Your task to perform on an android device: Turn on the flashlight Image 0: 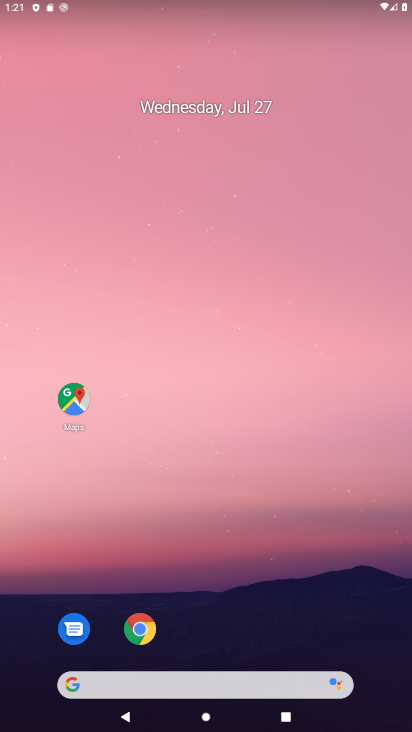
Step 0: drag from (261, 636) to (298, 39)
Your task to perform on an android device: Turn on the flashlight Image 1: 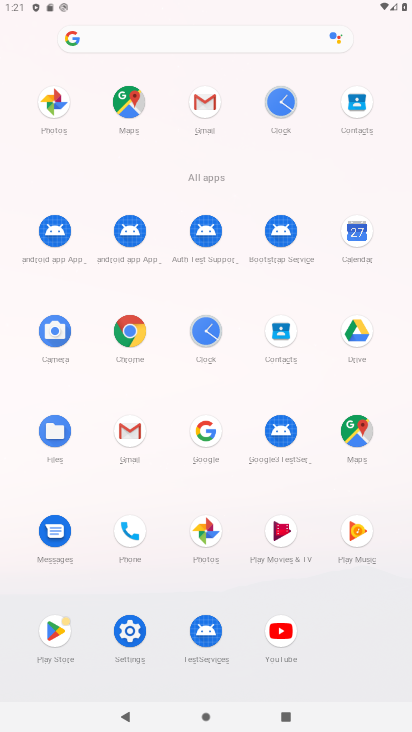
Step 1: click (138, 638)
Your task to perform on an android device: Turn on the flashlight Image 2: 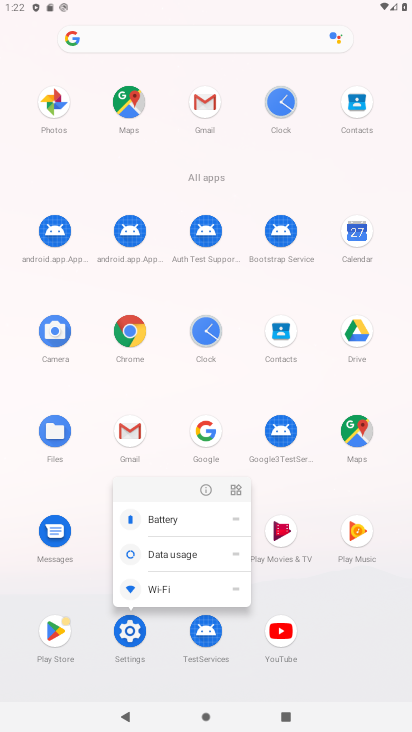
Step 2: click (129, 634)
Your task to perform on an android device: Turn on the flashlight Image 3: 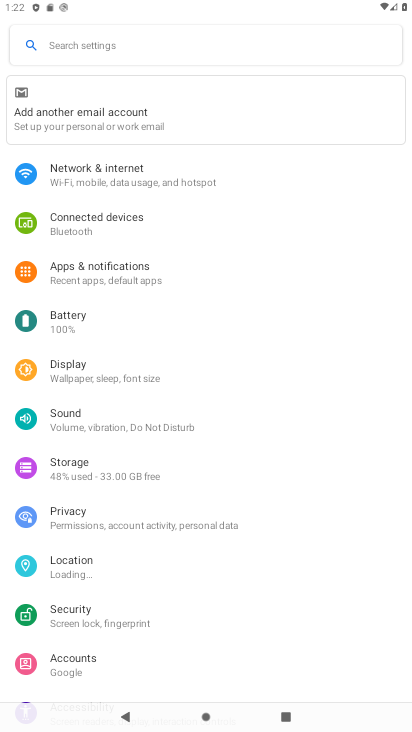
Step 3: click (83, 356)
Your task to perform on an android device: Turn on the flashlight Image 4: 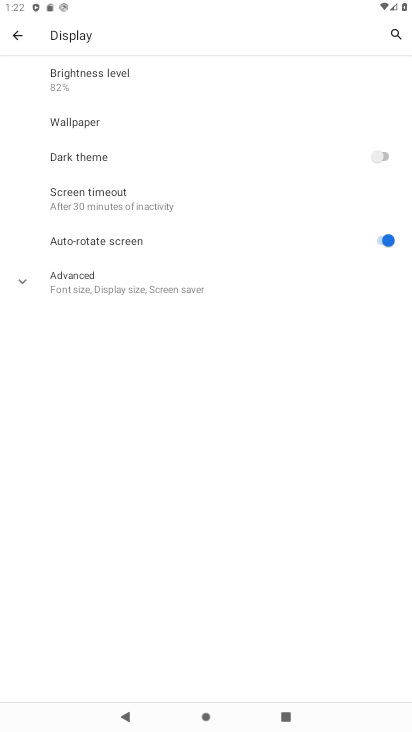
Step 4: click (147, 273)
Your task to perform on an android device: Turn on the flashlight Image 5: 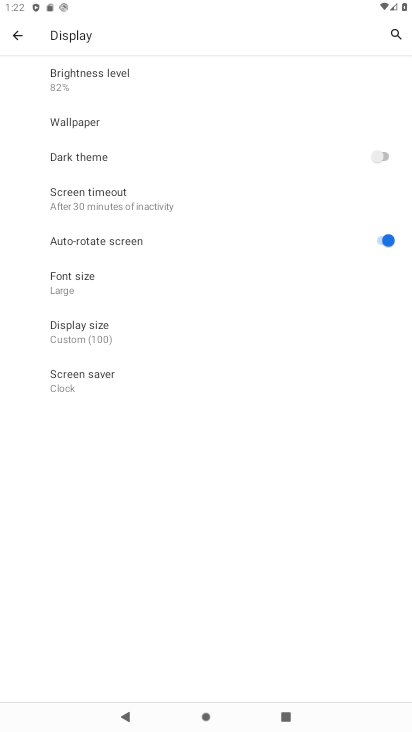
Step 5: click (101, 326)
Your task to perform on an android device: Turn on the flashlight Image 6: 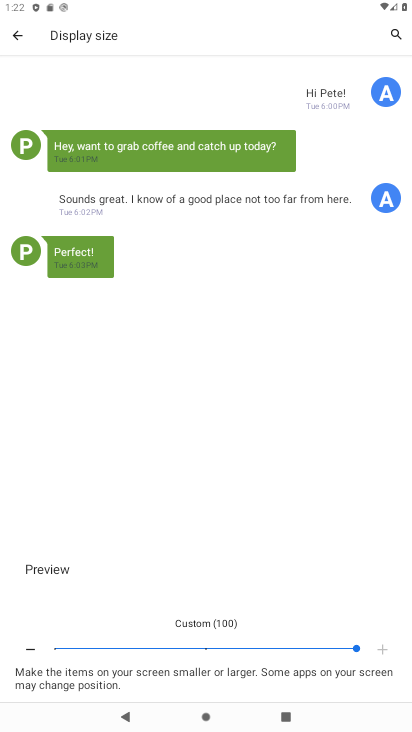
Step 6: click (203, 649)
Your task to perform on an android device: Turn on the flashlight Image 7: 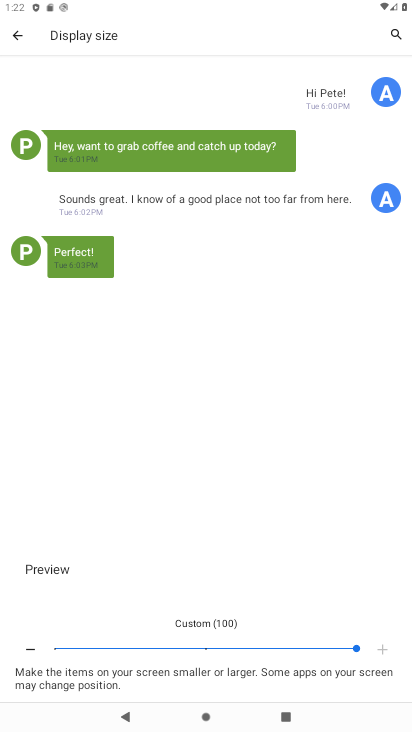
Step 7: click (29, 28)
Your task to perform on an android device: Turn on the flashlight Image 8: 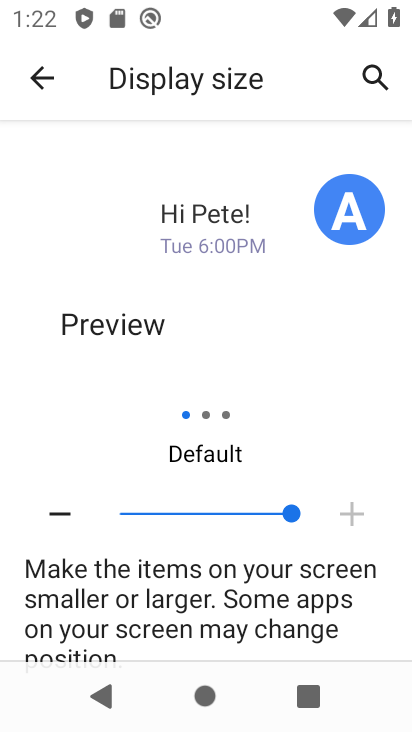
Step 8: click (36, 75)
Your task to perform on an android device: Turn on the flashlight Image 9: 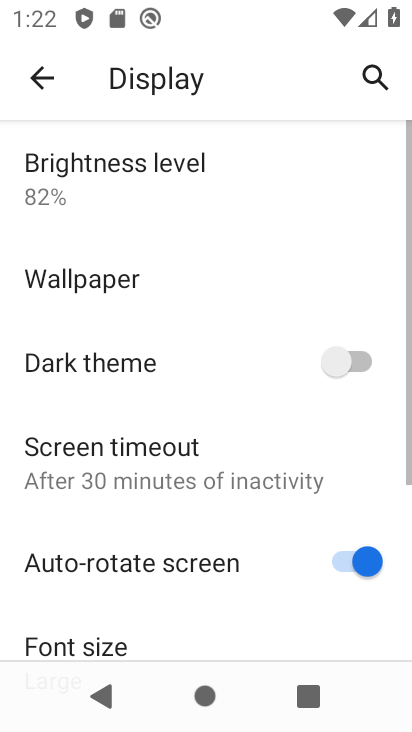
Step 9: click (45, 76)
Your task to perform on an android device: Turn on the flashlight Image 10: 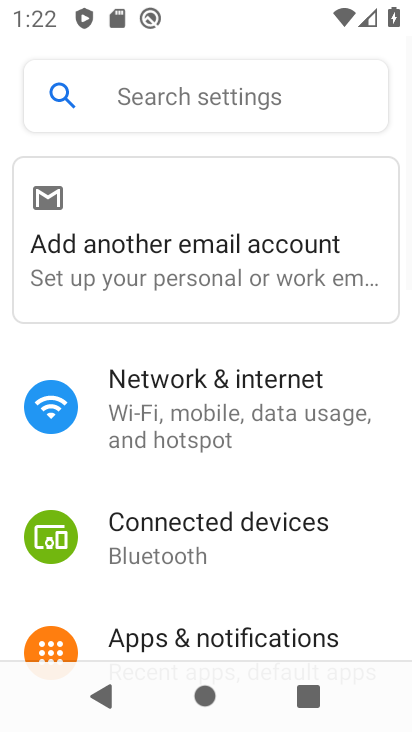
Step 10: click (177, 109)
Your task to perform on an android device: Turn on the flashlight Image 11: 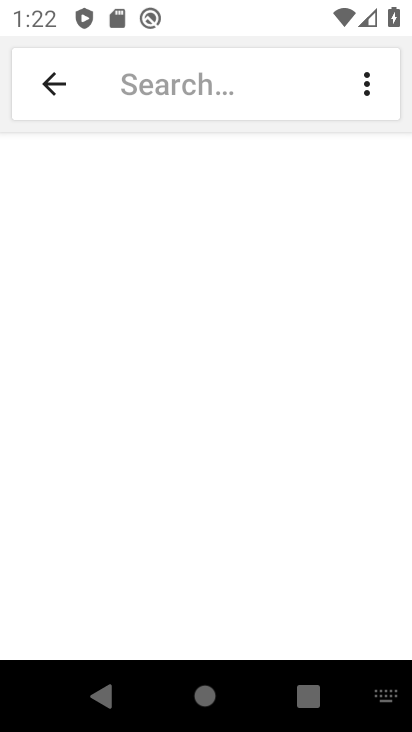
Step 11: type "flashlight"
Your task to perform on an android device: Turn on the flashlight Image 12: 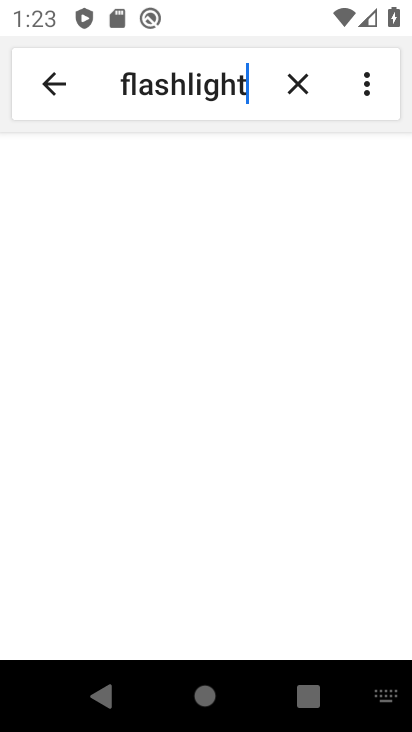
Step 12: task complete